Your task to perform on an android device: When is my next appointment? Image 0: 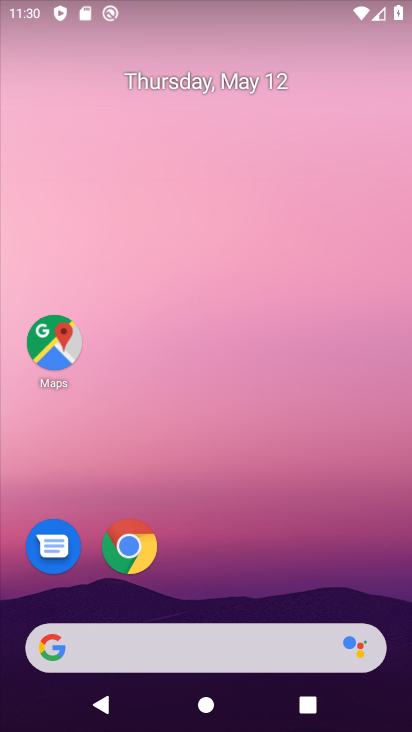
Step 0: drag from (220, 721) to (217, 144)
Your task to perform on an android device: When is my next appointment? Image 1: 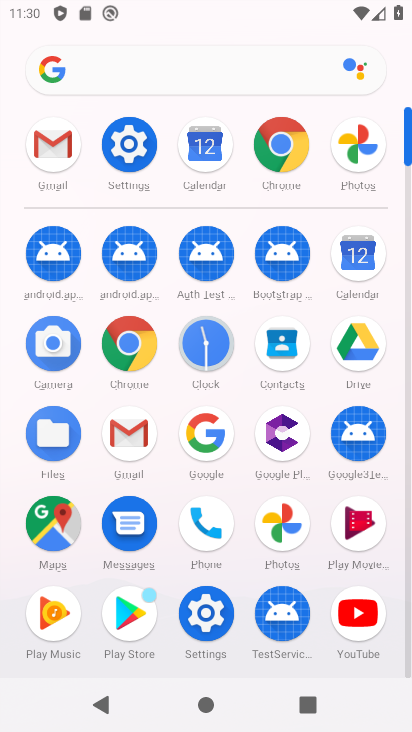
Step 1: click (359, 261)
Your task to perform on an android device: When is my next appointment? Image 2: 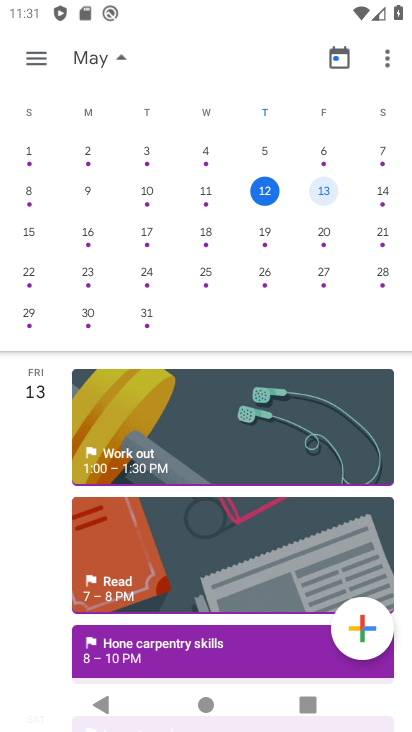
Step 2: click (326, 188)
Your task to perform on an android device: When is my next appointment? Image 3: 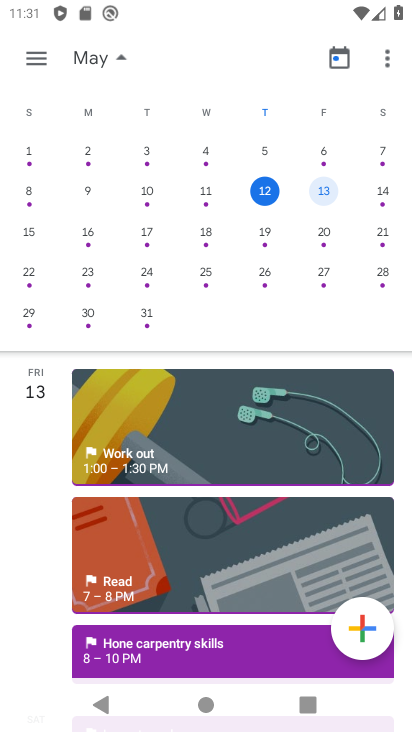
Step 3: task complete